Your task to perform on an android device: turn off improve location accuracy Image 0: 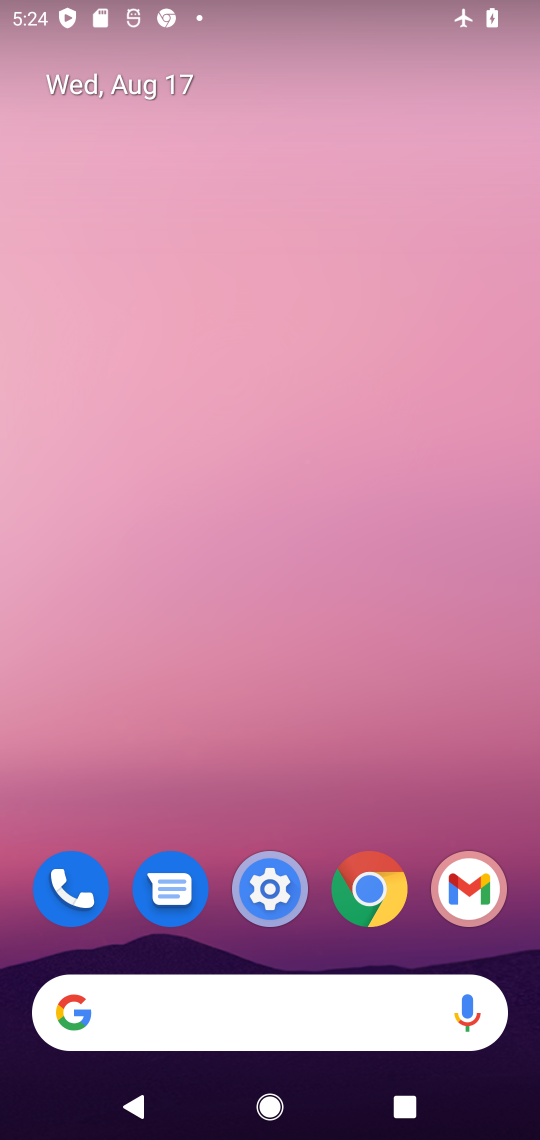
Step 0: click (269, 893)
Your task to perform on an android device: turn off improve location accuracy Image 1: 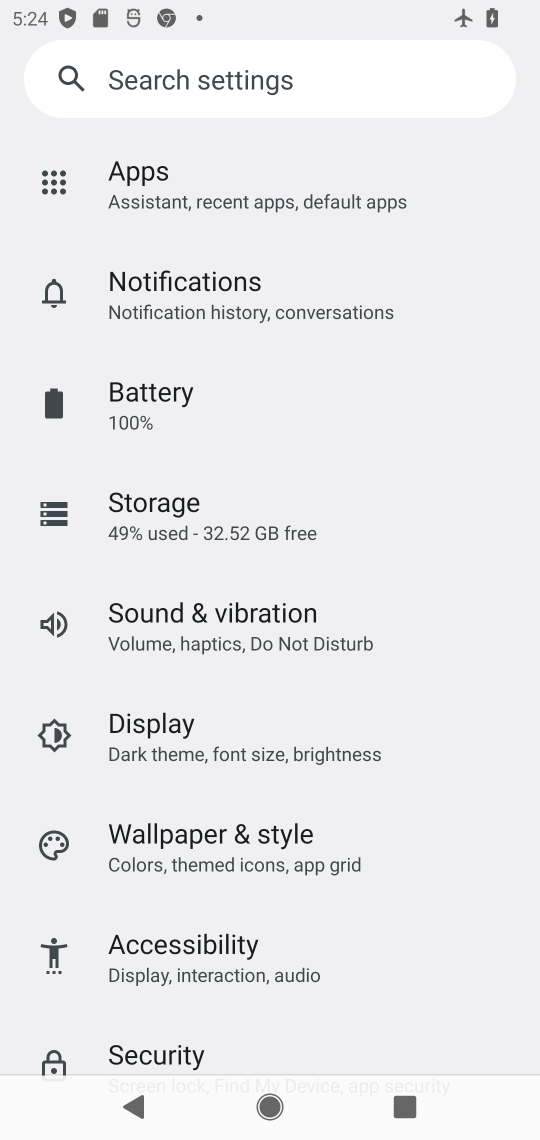
Step 1: drag from (375, 956) to (318, 482)
Your task to perform on an android device: turn off improve location accuracy Image 2: 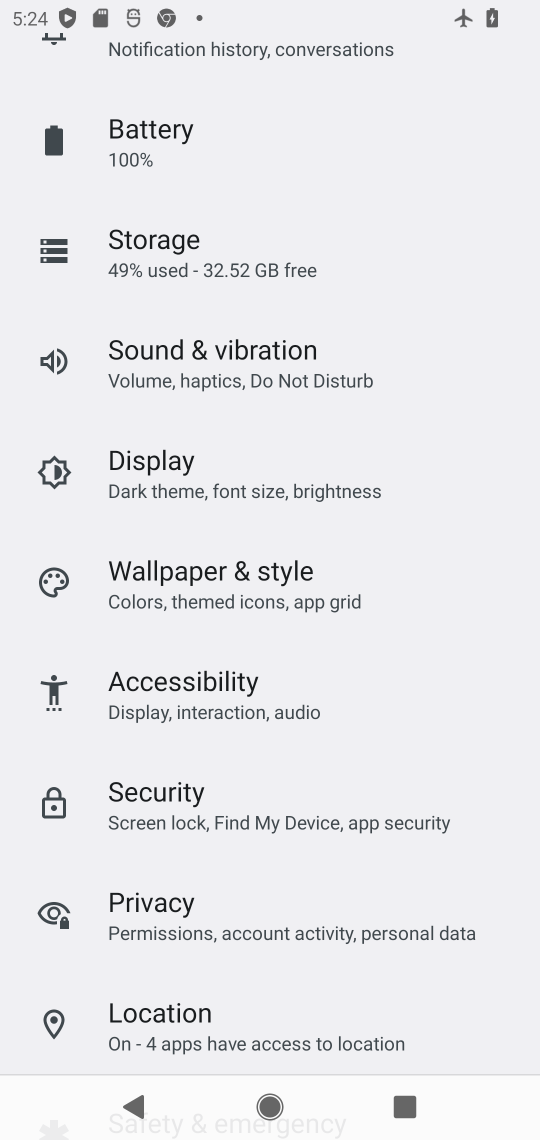
Step 2: click (165, 1005)
Your task to perform on an android device: turn off improve location accuracy Image 3: 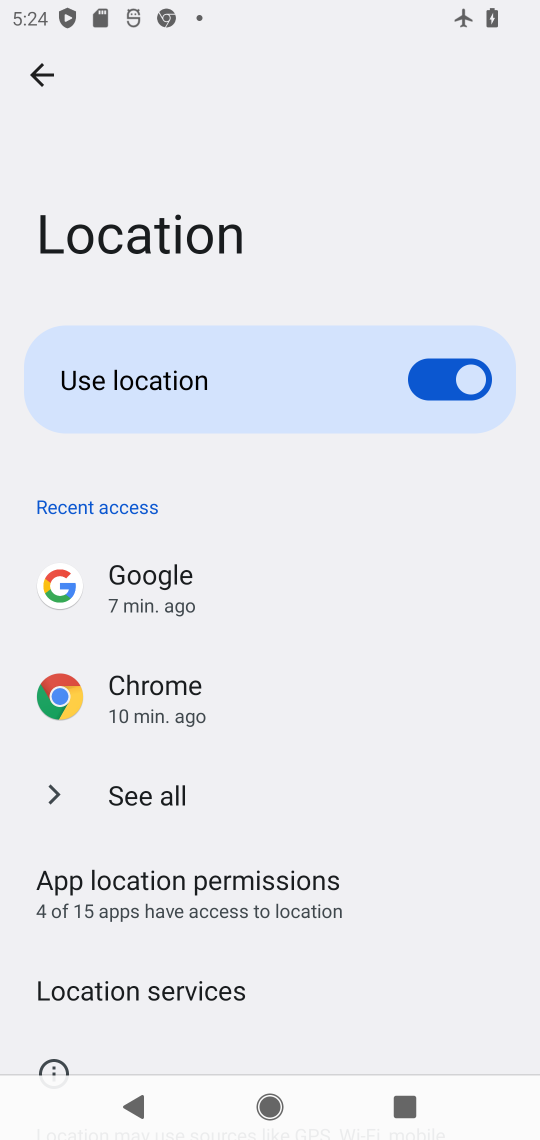
Step 3: click (166, 1000)
Your task to perform on an android device: turn off improve location accuracy Image 4: 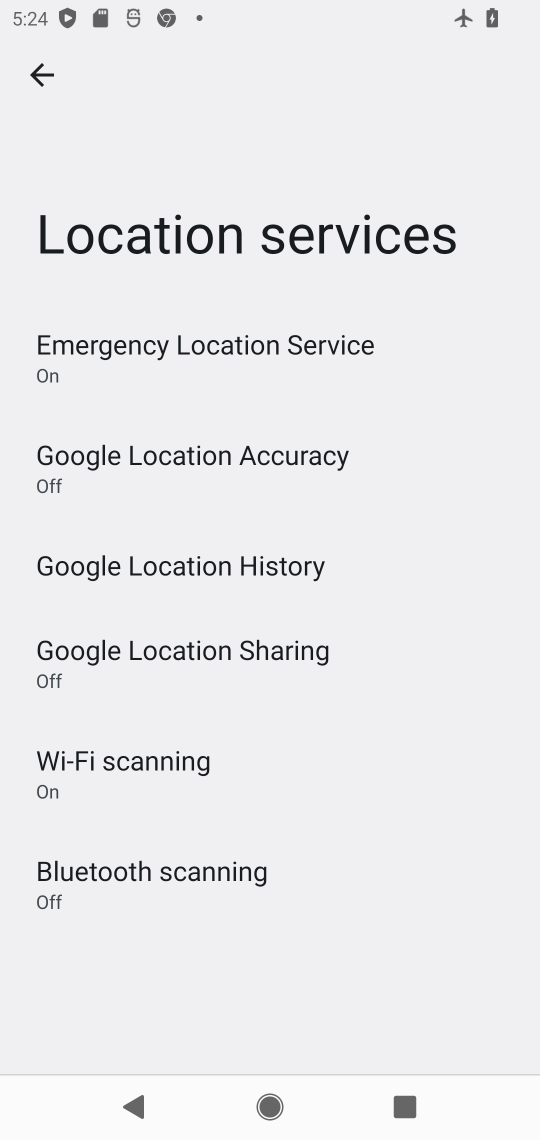
Step 4: click (168, 451)
Your task to perform on an android device: turn off improve location accuracy Image 5: 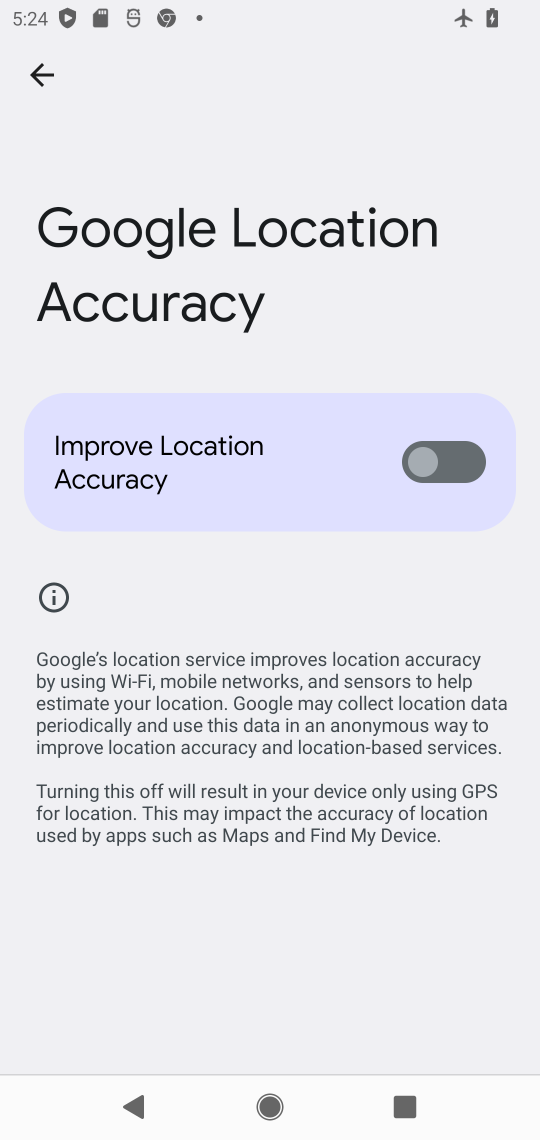
Step 5: task complete